Your task to perform on an android device: turn off smart reply in the gmail app Image 0: 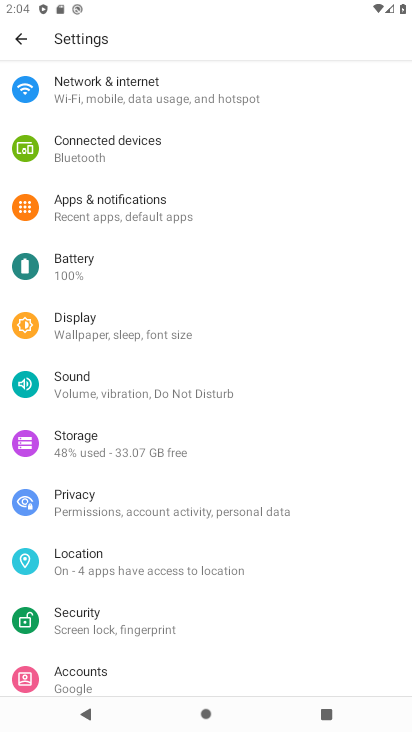
Step 0: press home button
Your task to perform on an android device: turn off smart reply in the gmail app Image 1: 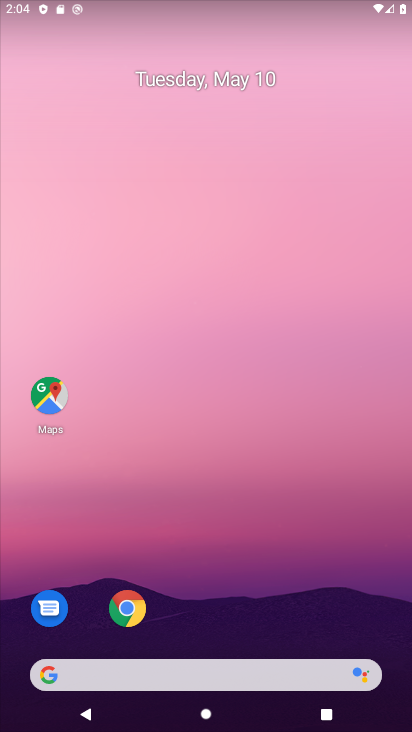
Step 1: drag from (382, 634) to (320, 86)
Your task to perform on an android device: turn off smart reply in the gmail app Image 2: 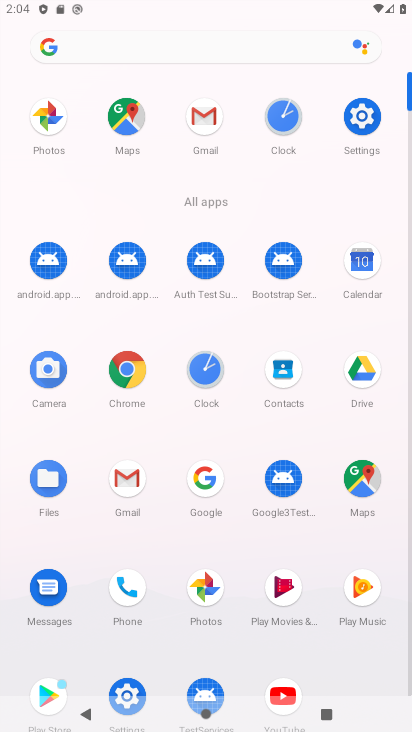
Step 2: click (127, 477)
Your task to perform on an android device: turn off smart reply in the gmail app Image 3: 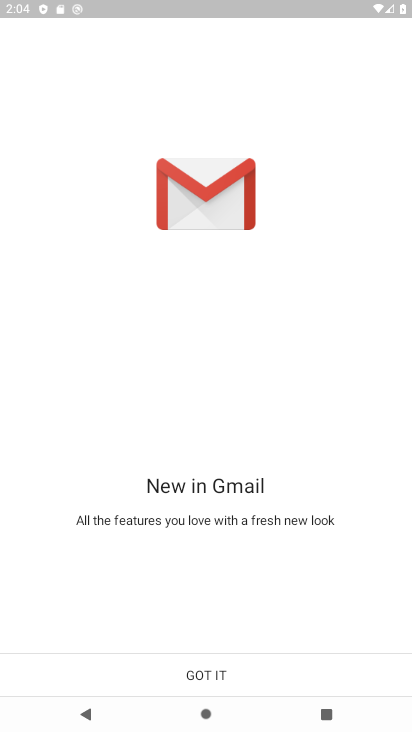
Step 3: click (196, 668)
Your task to perform on an android device: turn off smart reply in the gmail app Image 4: 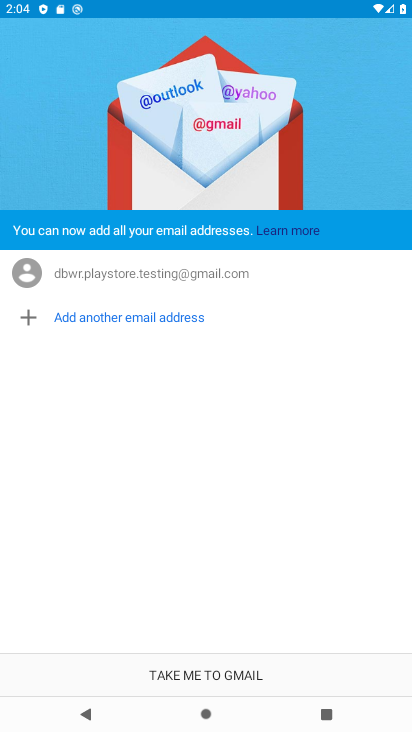
Step 4: click (196, 668)
Your task to perform on an android device: turn off smart reply in the gmail app Image 5: 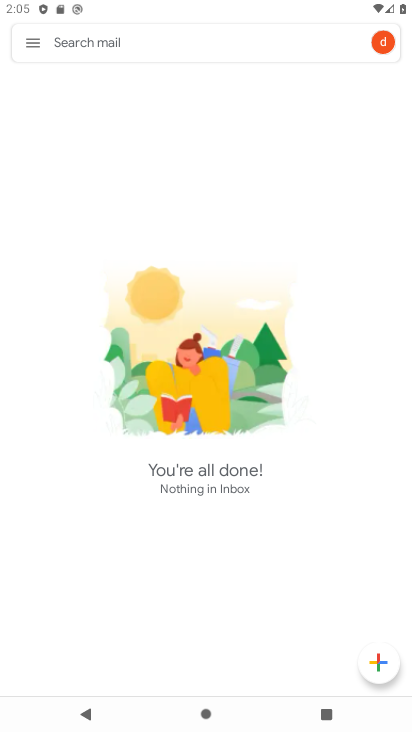
Step 5: click (33, 41)
Your task to perform on an android device: turn off smart reply in the gmail app Image 6: 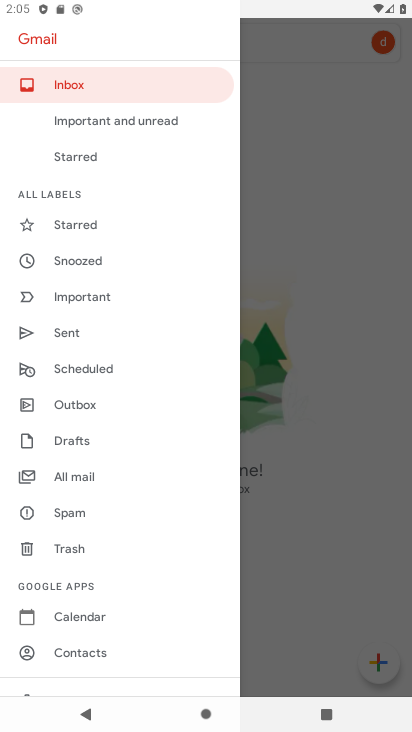
Step 6: drag from (141, 628) to (147, 351)
Your task to perform on an android device: turn off smart reply in the gmail app Image 7: 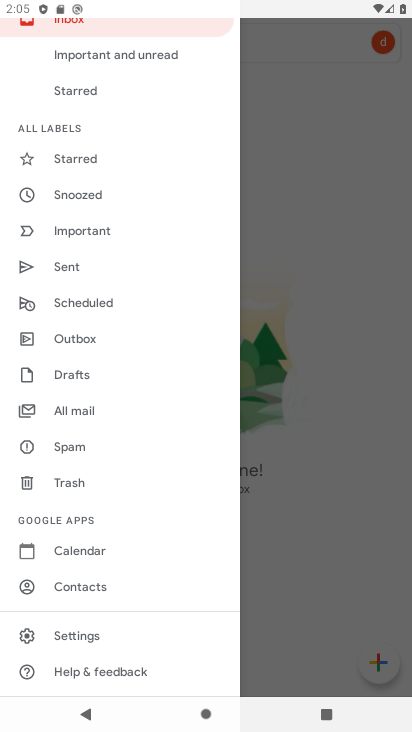
Step 7: click (61, 634)
Your task to perform on an android device: turn off smart reply in the gmail app Image 8: 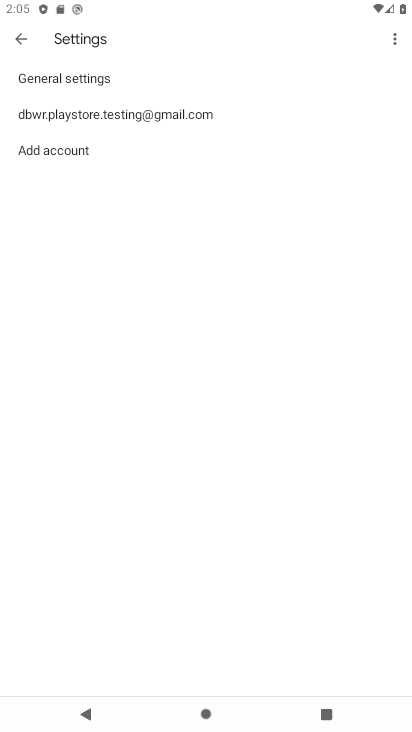
Step 8: click (93, 113)
Your task to perform on an android device: turn off smart reply in the gmail app Image 9: 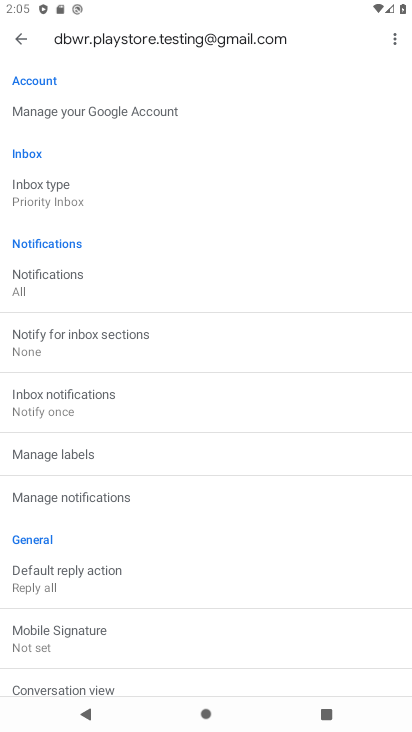
Step 9: drag from (168, 613) to (209, 198)
Your task to perform on an android device: turn off smart reply in the gmail app Image 10: 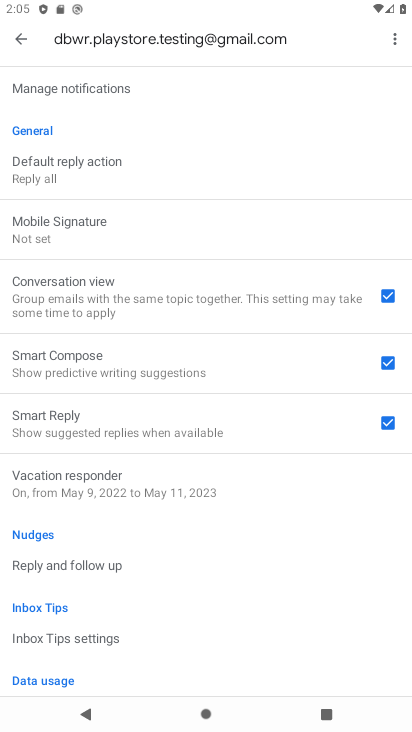
Step 10: click (392, 417)
Your task to perform on an android device: turn off smart reply in the gmail app Image 11: 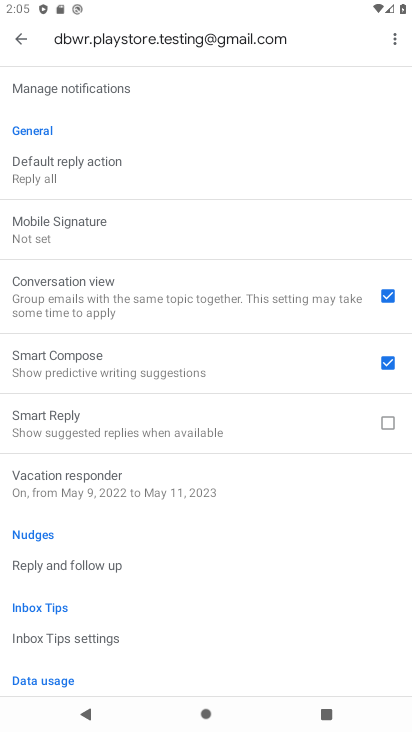
Step 11: task complete